Your task to perform on an android device: Open the web browser Image 0: 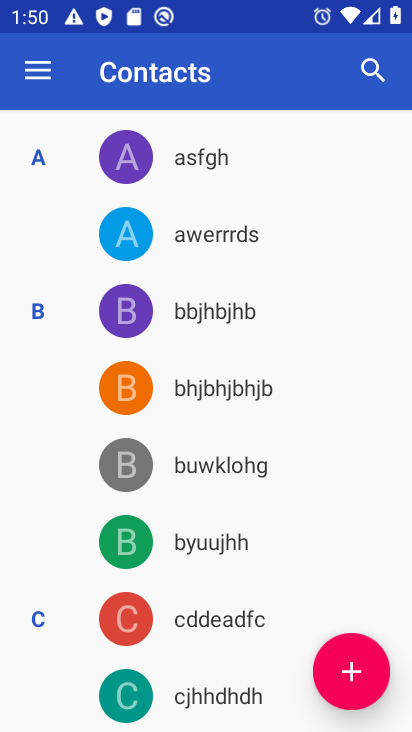
Step 0: press home button
Your task to perform on an android device: Open the web browser Image 1: 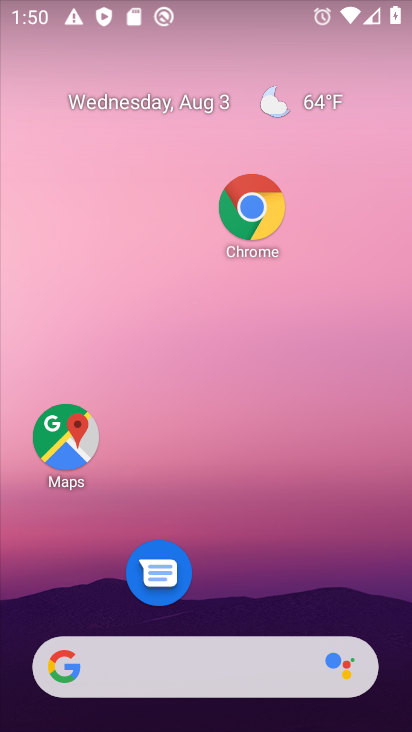
Step 1: drag from (171, 648) to (320, 125)
Your task to perform on an android device: Open the web browser Image 2: 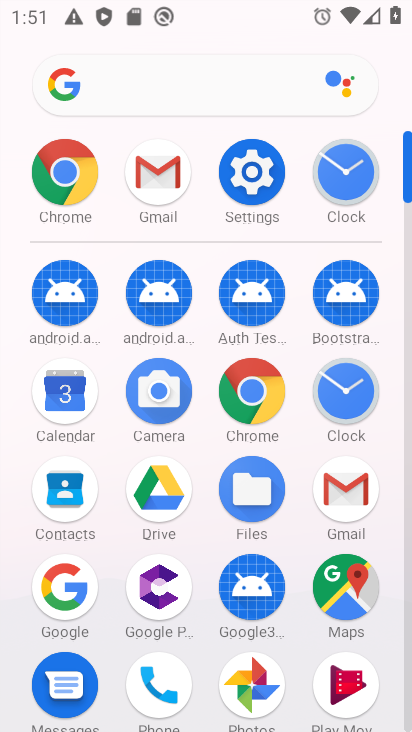
Step 2: click (266, 399)
Your task to perform on an android device: Open the web browser Image 3: 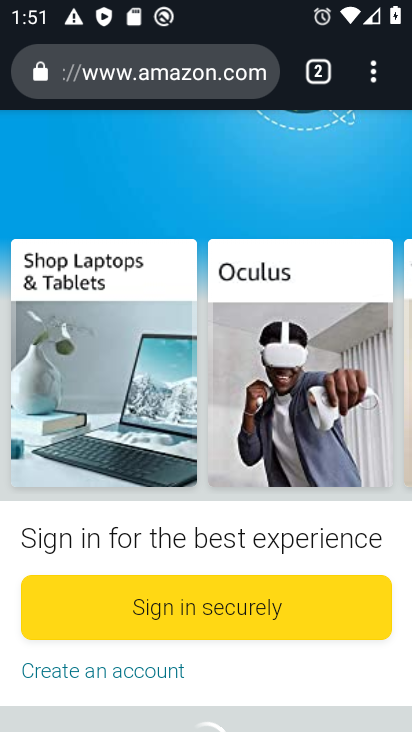
Step 3: task complete